Your task to perform on an android device: Search for pizza restaurants on Maps Image 0: 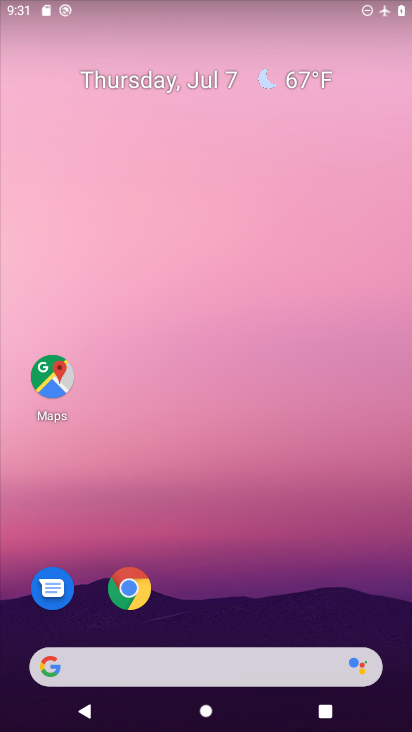
Step 0: click (53, 379)
Your task to perform on an android device: Search for pizza restaurants on Maps Image 1: 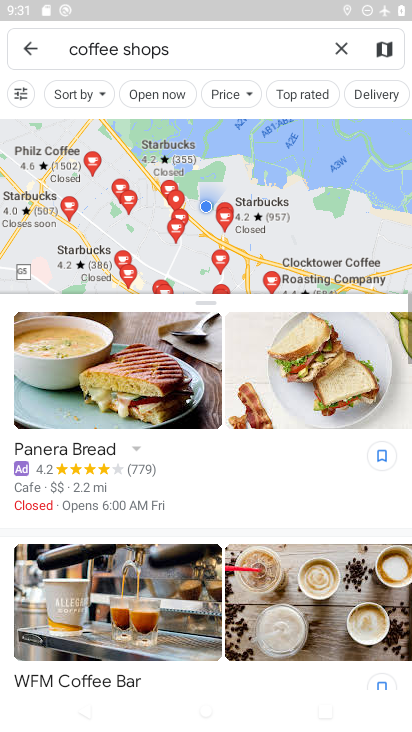
Step 1: click (337, 51)
Your task to perform on an android device: Search for pizza restaurants on Maps Image 2: 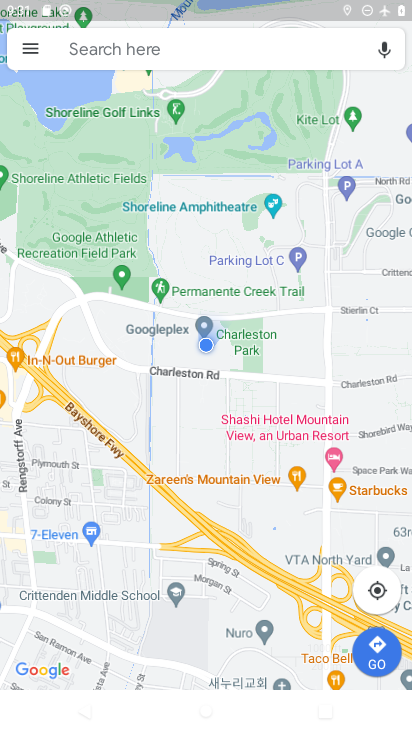
Step 2: click (292, 49)
Your task to perform on an android device: Search for pizza restaurants on Maps Image 3: 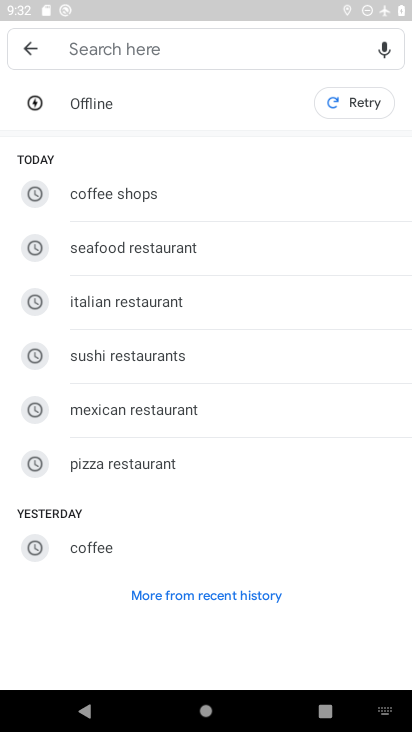
Step 3: type "pizza restaurants"
Your task to perform on an android device: Search for pizza restaurants on Maps Image 4: 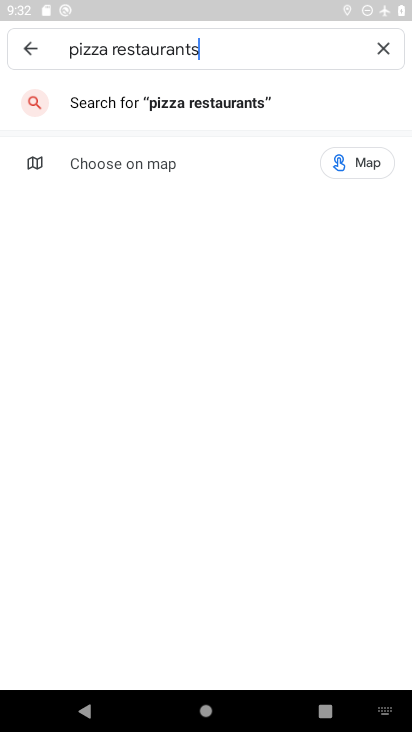
Step 4: task complete